Your task to perform on an android device: Open Google Chrome Image 0: 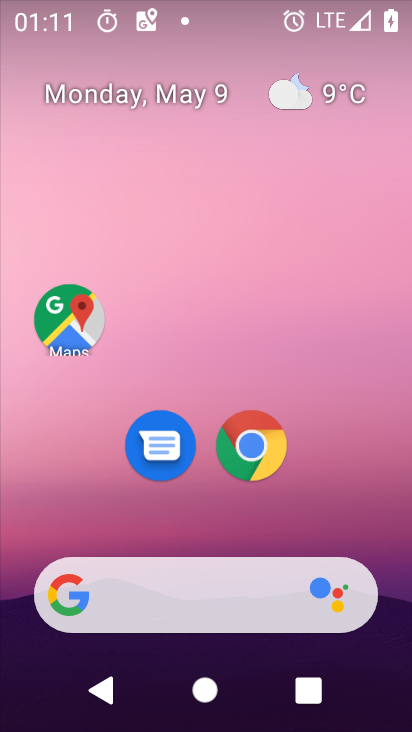
Step 0: click (257, 460)
Your task to perform on an android device: Open Google Chrome Image 1: 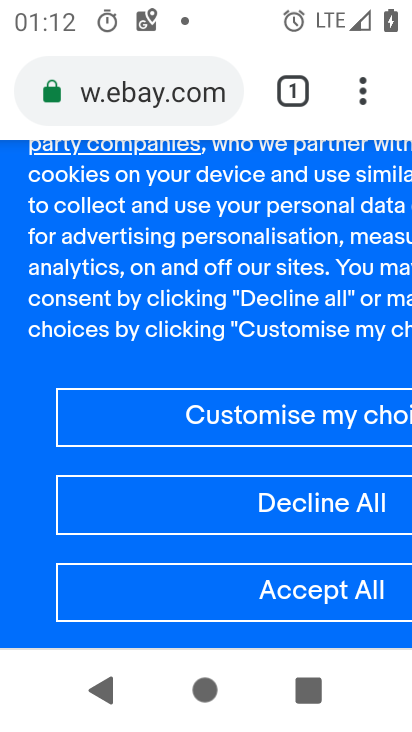
Step 1: task complete